Your task to perform on an android device: Show me popular games on the Play Store Image 0: 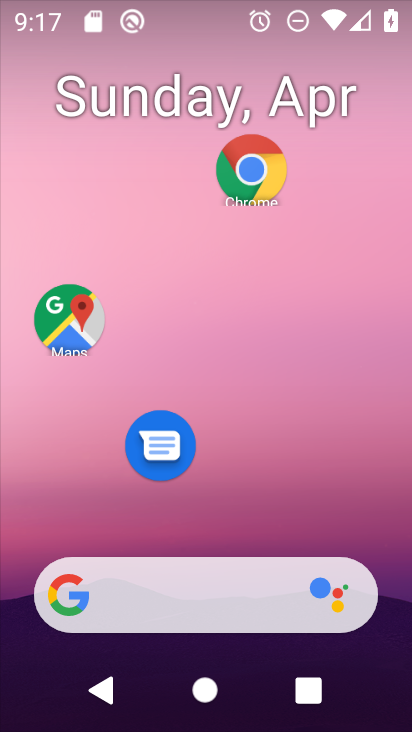
Step 0: drag from (259, 496) to (229, 57)
Your task to perform on an android device: Show me popular games on the Play Store Image 1: 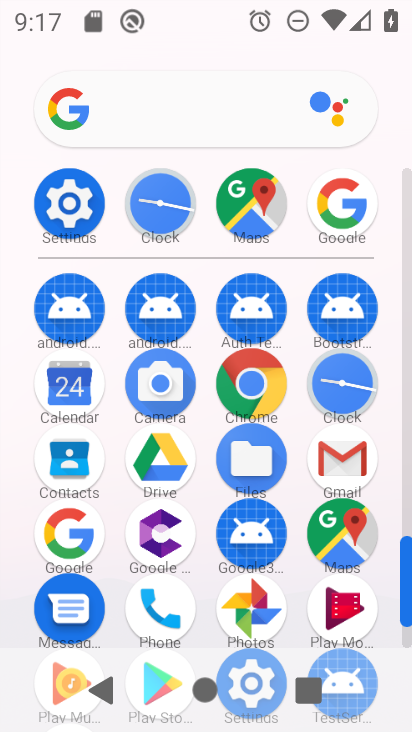
Step 1: drag from (119, 607) to (101, 288)
Your task to perform on an android device: Show me popular games on the Play Store Image 2: 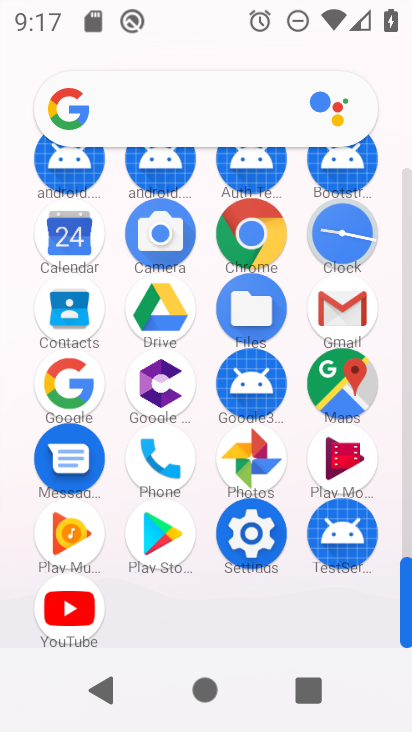
Step 2: click (145, 517)
Your task to perform on an android device: Show me popular games on the Play Store Image 3: 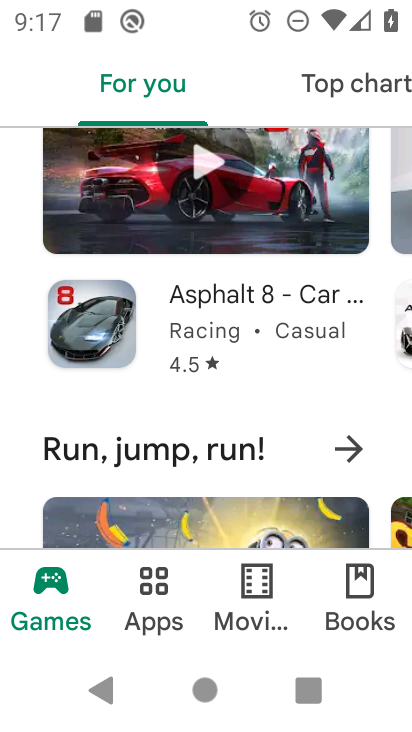
Step 3: drag from (344, 401) to (125, 365)
Your task to perform on an android device: Show me popular games on the Play Store Image 4: 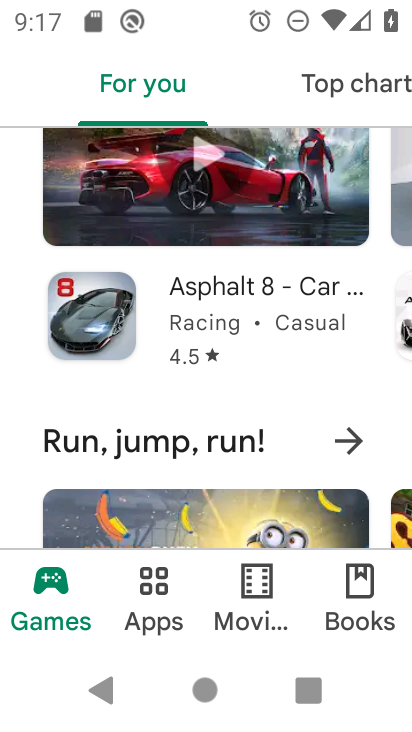
Step 4: drag from (373, 401) to (13, 368)
Your task to perform on an android device: Show me popular games on the Play Store Image 5: 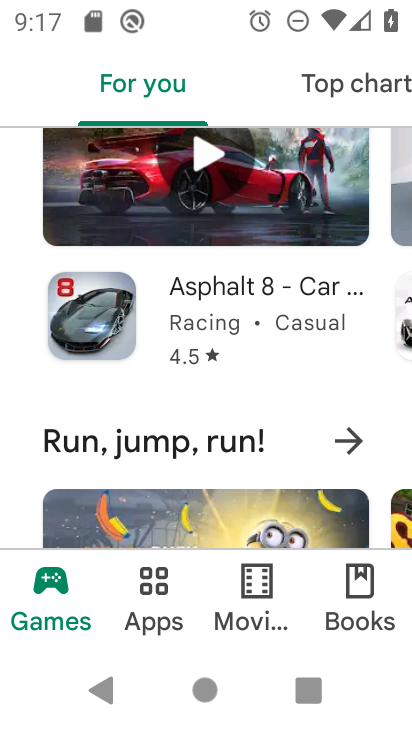
Step 5: click (361, 81)
Your task to perform on an android device: Show me popular games on the Play Store Image 6: 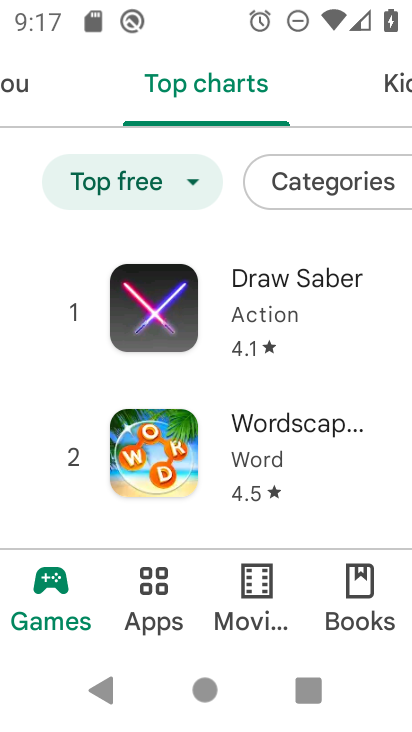
Step 6: click (400, 78)
Your task to perform on an android device: Show me popular games on the Play Store Image 7: 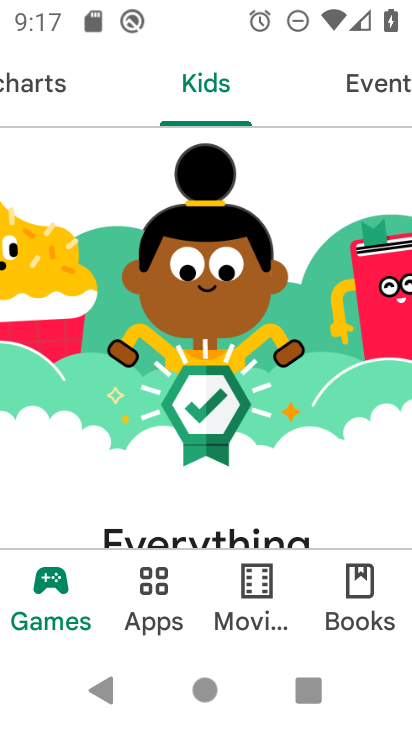
Step 7: click (39, 86)
Your task to perform on an android device: Show me popular games on the Play Store Image 8: 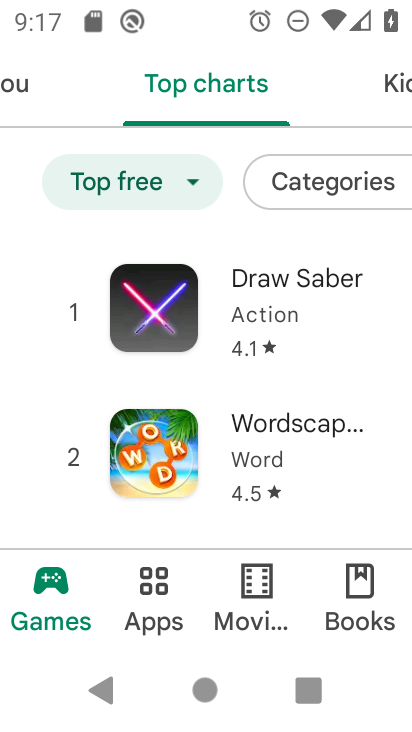
Step 8: click (12, 89)
Your task to perform on an android device: Show me popular games on the Play Store Image 9: 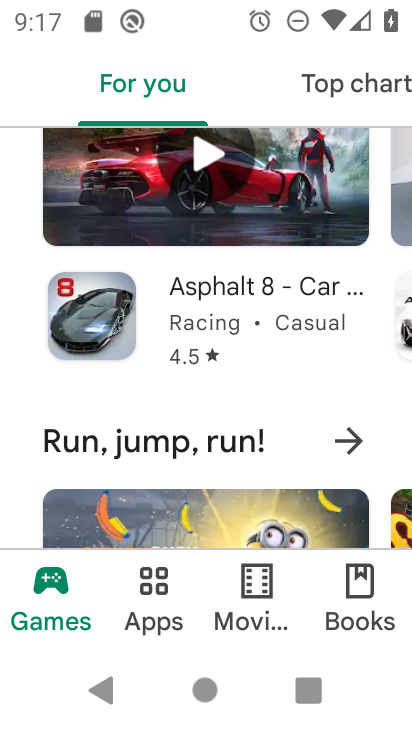
Step 9: task complete